Your task to perform on an android device: Empty the shopping cart on walmart.com. Add "alienware area 51" to the cart on walmart.com Image 0: 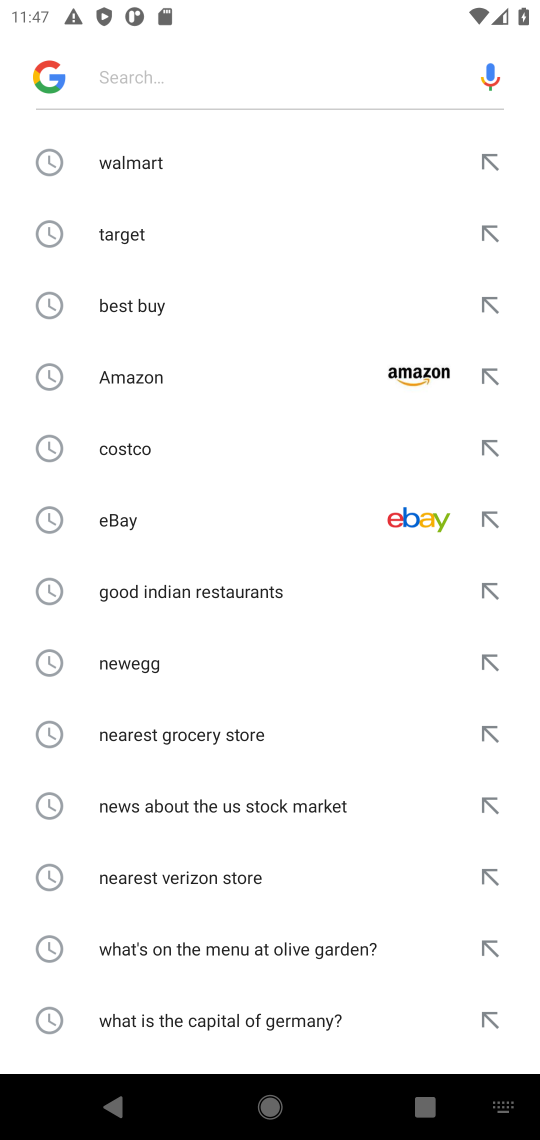
Step 0: press home button
Your task to perform on an android device: Empty the shopping cart on walmart.com. Add "alienware area 51" to the cart on walmart.com Image 1: 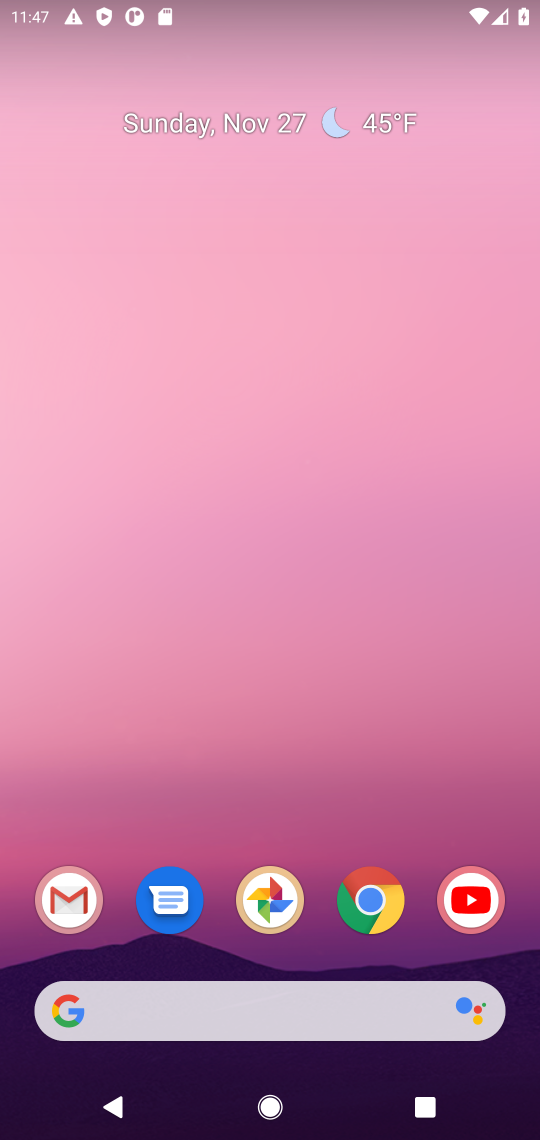
Step 1: click (381, 908)
Your task to perform on an android device: Empty the shopping cart on walmart.com. Add "alienware area 51" to the cart on walmart.com Image 2: 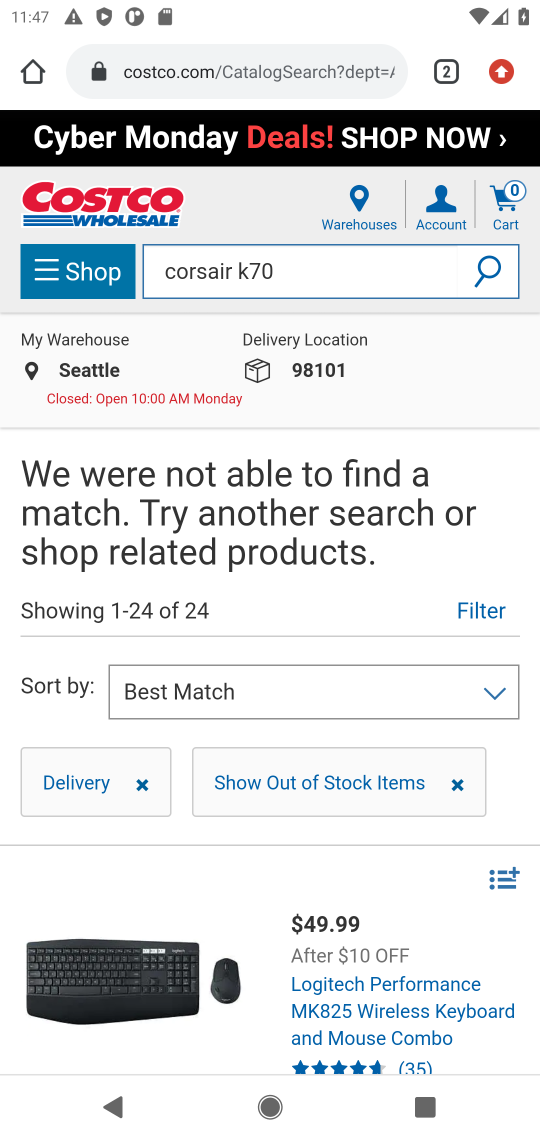
Step 2: click (174, 67)
Your task to perform on an android device: Empty the shopping cart on walmart.com. Add "alienware area 51" to the cart on walmart.com Image 3: 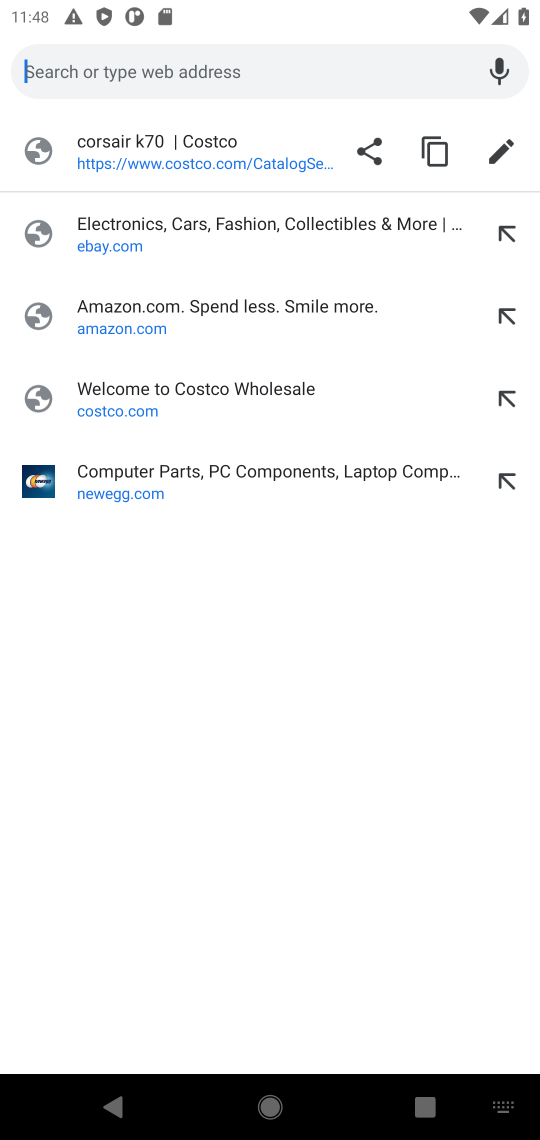
Step 3: type "walmart.com"
Your task to perform on an android device: Empty the shopping cart on walmart.com. Add "alienware area 51" to the cart on walmart.com Image 4: 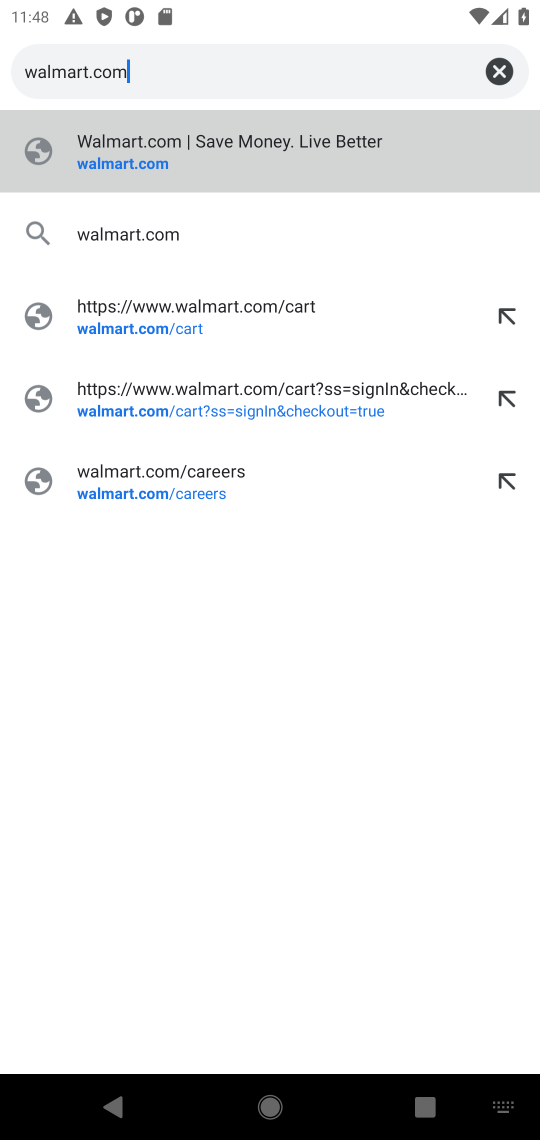
Step 4: click (116, 173)
Your task to perform on an android device: Empty the shopping cart on walmart.com. Add "alienware area 51" to the cart on walmart.com Image 5: 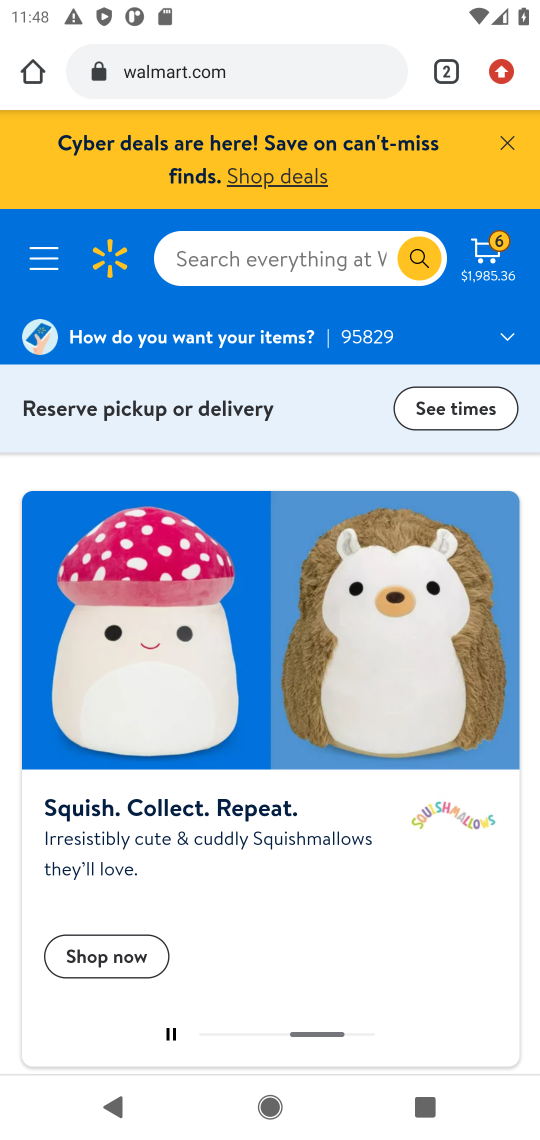
Step 5: click (484, 261)
Your task to perform on an android device: Empty the shopping cart on walmart.com. Add "alienware area 51" to the cart on walmart.com Image 6: 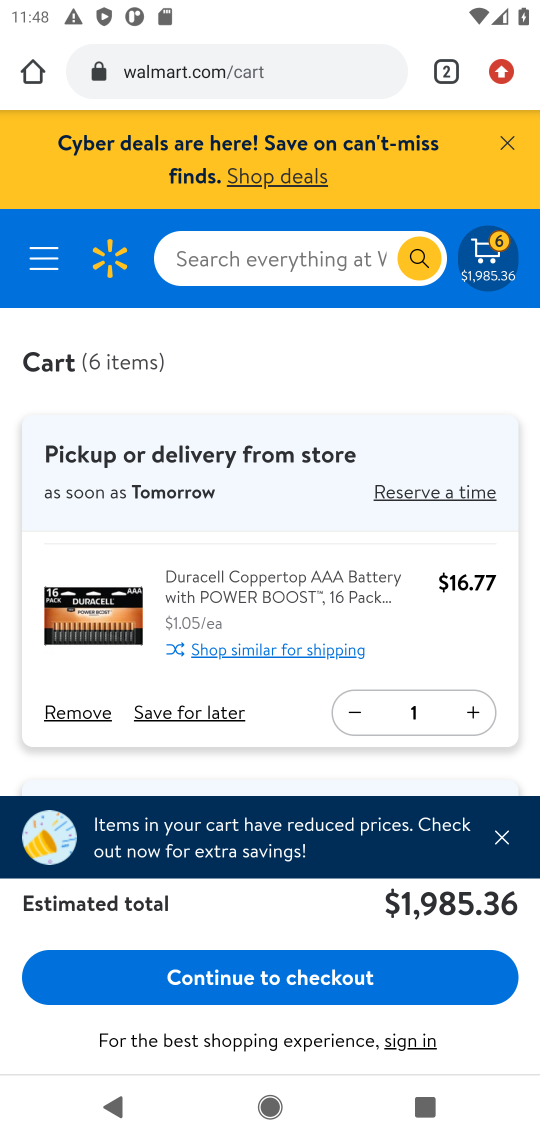
Step 6: click (69, 712)
Your task to perform on an android device: Empty the shopping cart on walmart.com. Add "alienware area 51" to the cart on walmart.com Image 7: 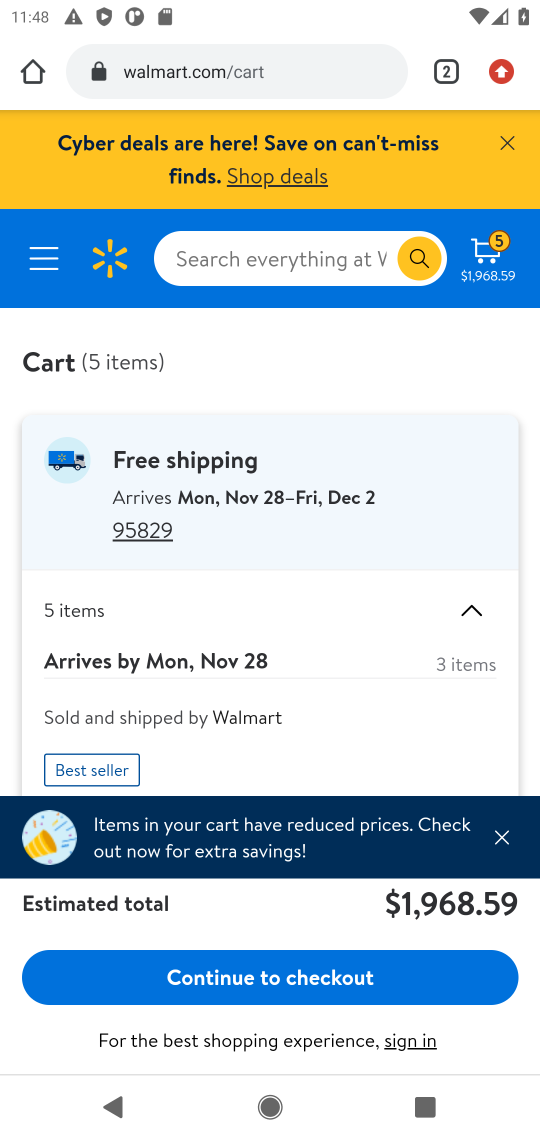
Step 7: drag from (335, 742) to (371, 420)
Your task to perform on an android device: Empty the shopping cart on walmart.com. Add "alienware area 51" to the cart on walmart.com Image 8: 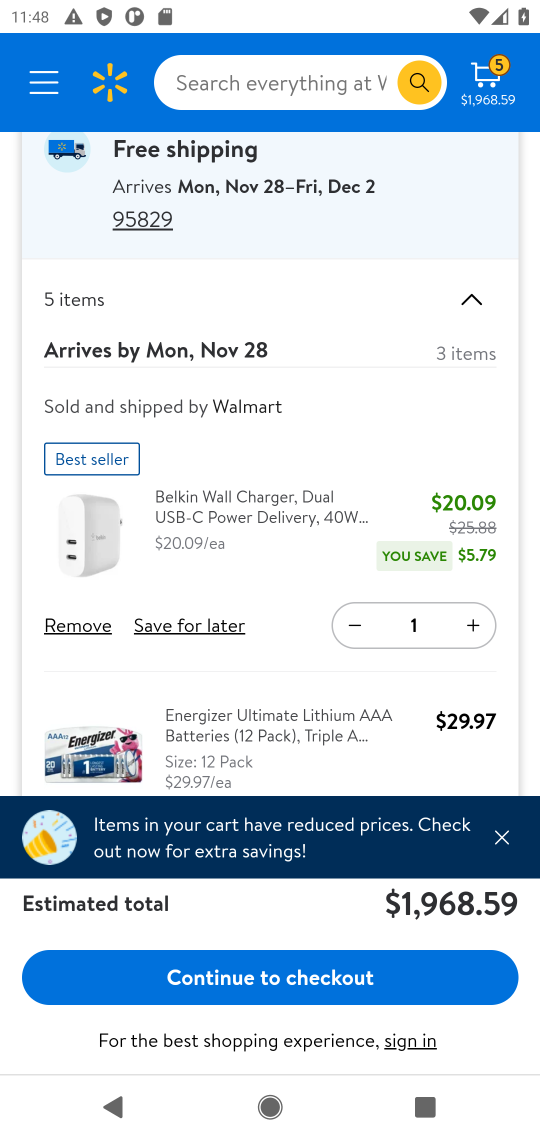
Step 8: click (67, 625)
Your task to perform on an android device: Empty the shopping cart on walmart.com. Add "alienware area 51" to the cart on walmart.com Image 9: 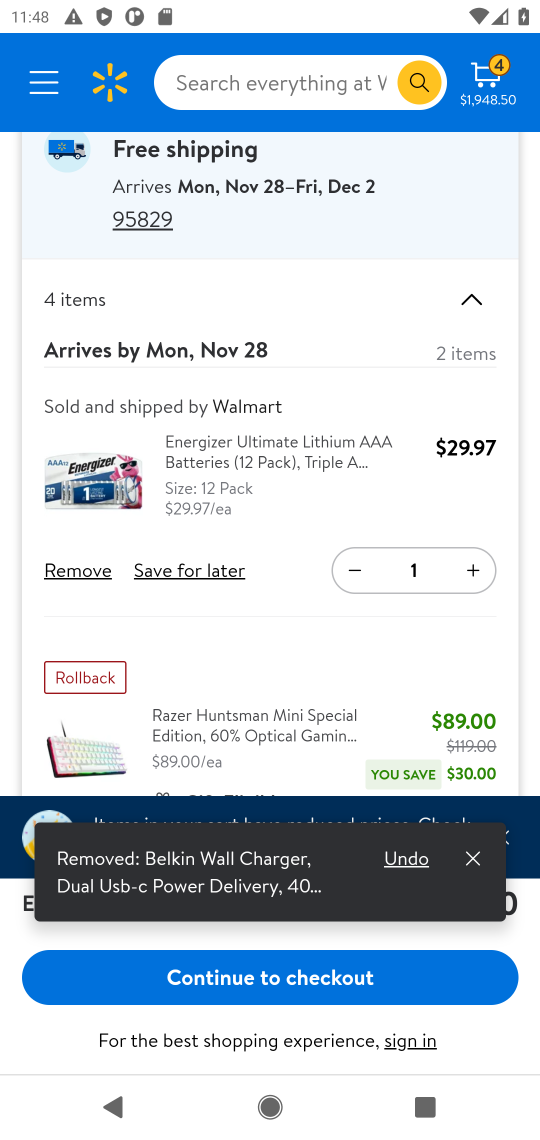
Step 9: click (56, 571)
Your task to perform on an android device: Empty the shopping cart on walmart.com. Add "alienware area 51" to the cart on walmart.com Image 10: 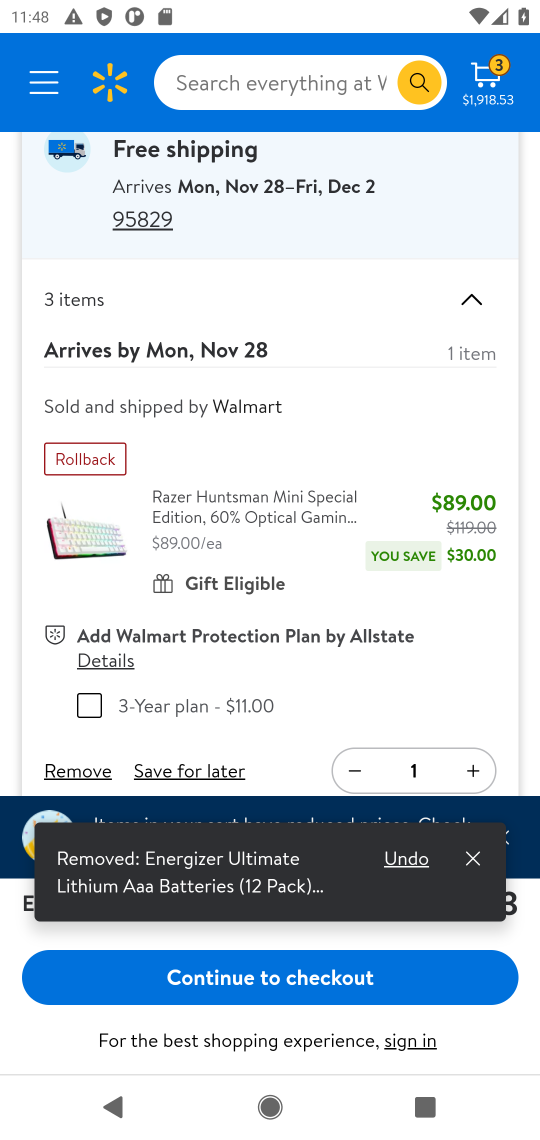
Step 10: click (79, 770)
Your task to perform on an android device: Empty the shopping cart on walmart.com. Add "alienware area 51" to the cart on walmart.com Image 11: 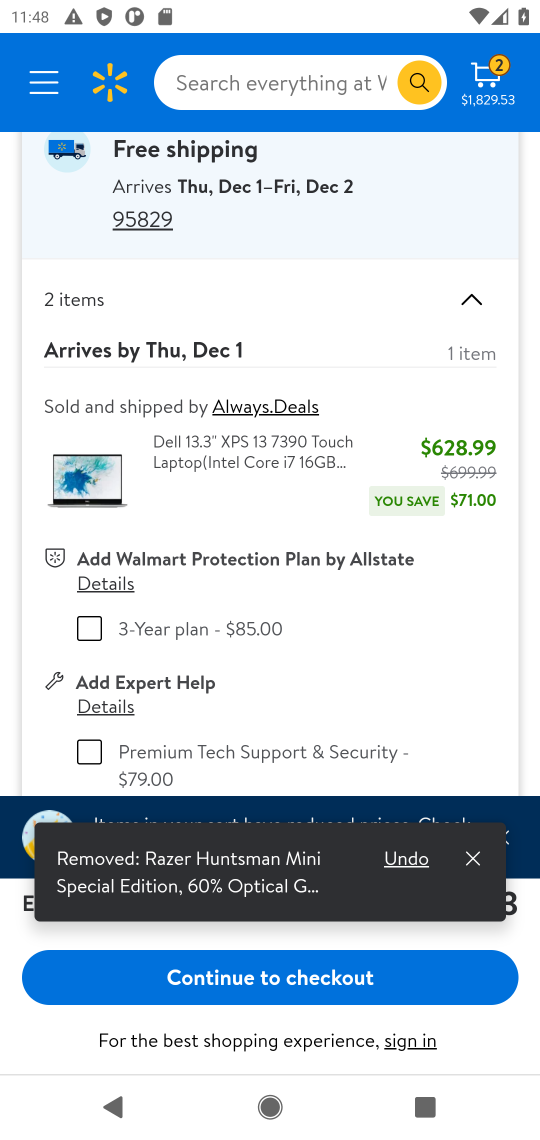
Step 11: drag from (309, 679) to (354, 296)
Your task to perform on an android device: Empty the shopping cart on walmart.com. Add "alienware area 51" to the cart on walmart.com Image 12: 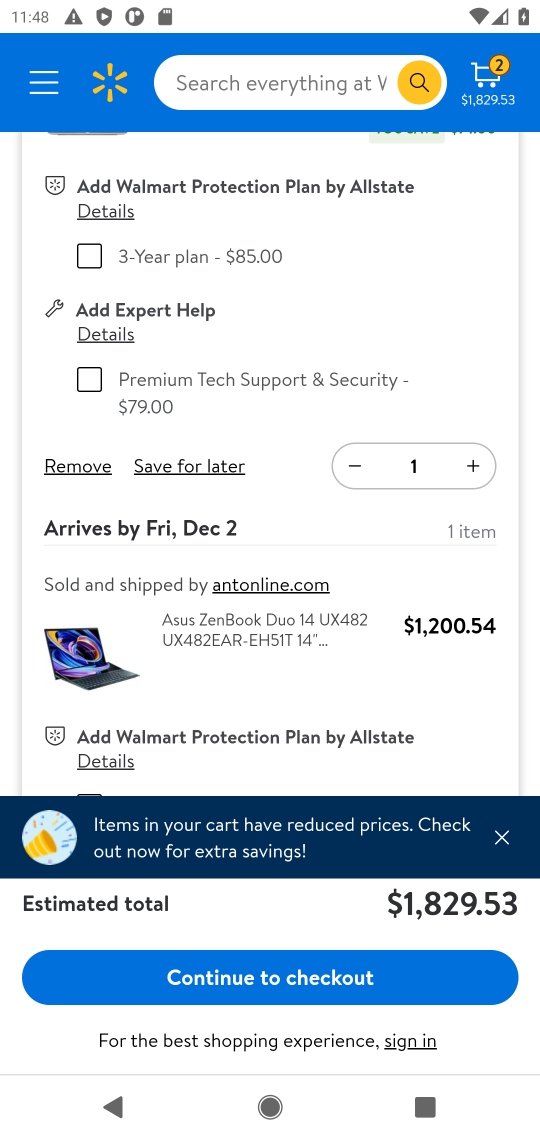
Step 12: click (73, 464)
Your task to perform on an android device: Empty the shopping cart on walmart.com. Add "alienware area 51" to the cart on walmart.com Image 13: 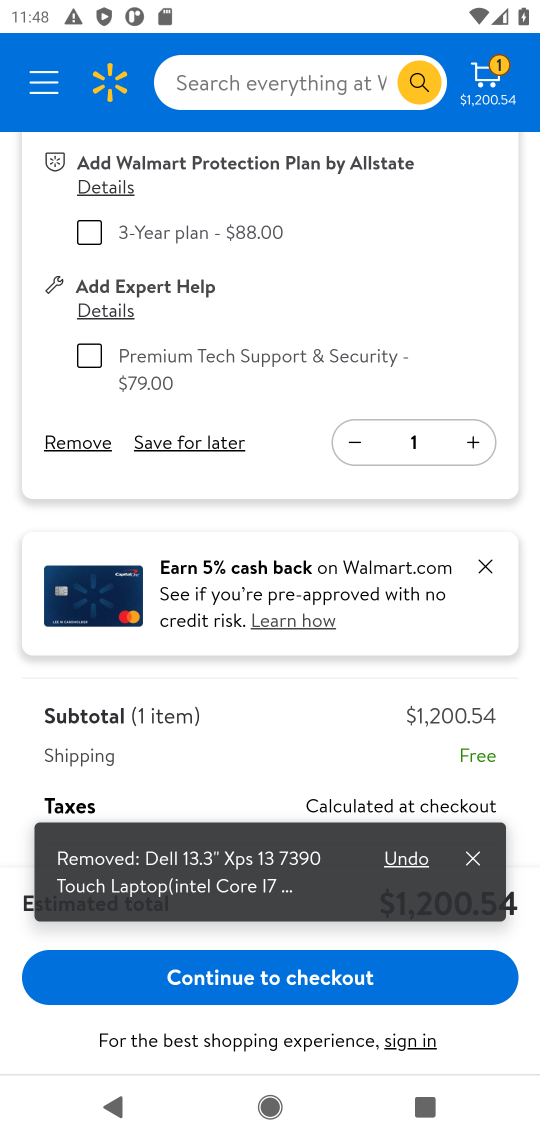
Step 13: click (64, 444)
Your task to perform on an android device: Empty the shopping cart on walmart.com. Add "alienware area 51" to the cart on walmart.com Image 14: 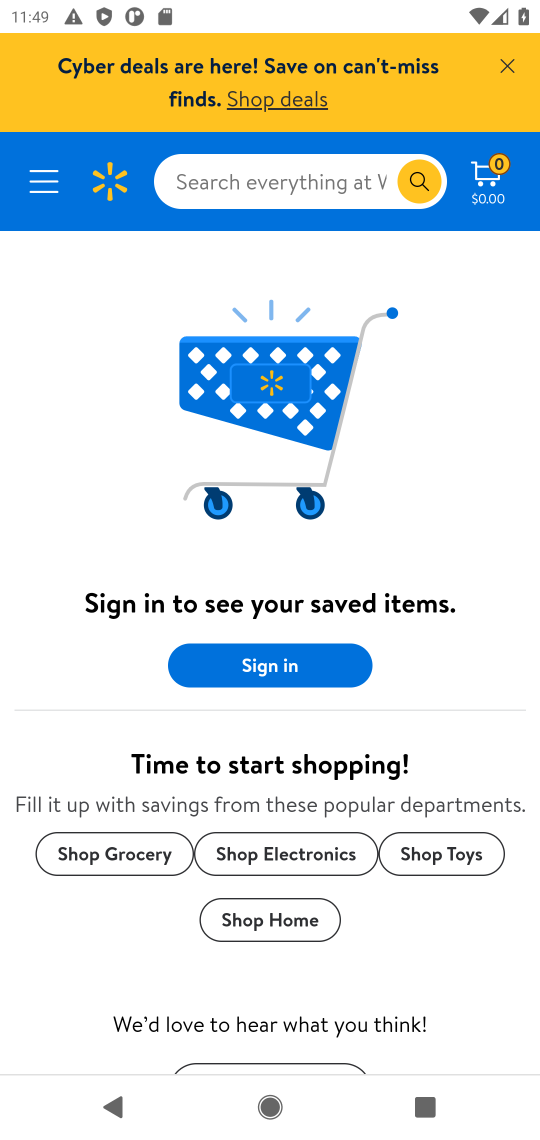
Step 14: click (211, 180)
Your task to perform on an android device: Empty the shopping cart on walmart.com. Add "alienware area 51" to the cart on walmart.com Image 15: 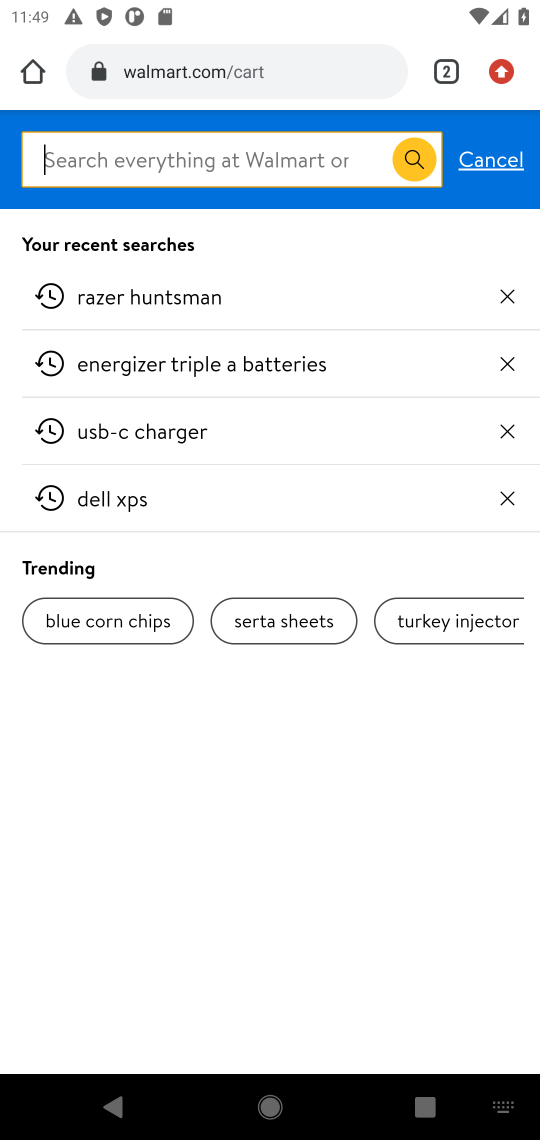
Step 15: type "alienware area 51"
Your task to perform on an android device: Empty the shopping cart on walmart.com. Add "alienware area 51" to the cart on walmart.com Image 16: 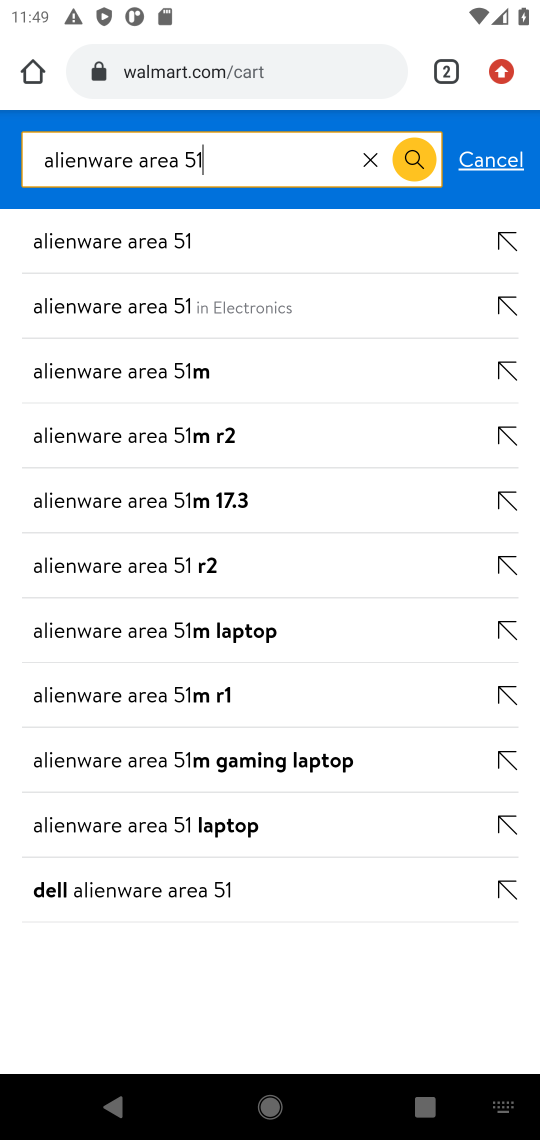
Step 16: click (128, 248)
Your task to perform on an android device: Empty the shopping cart on walmart.com. Add "alienware area 51" to the cart on walmart.com Image 17: 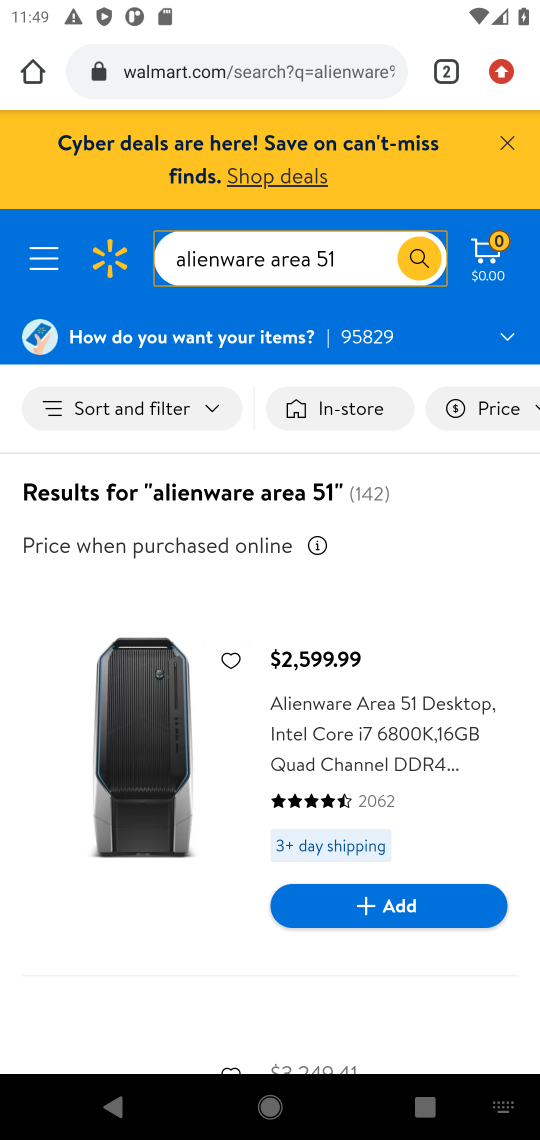
Step 17: click (374, 907)
Your task to perform on an android device: Empty the shopping cart on walmart.com. Add "alienware area 51" to the cart on walmart.com Image 18: 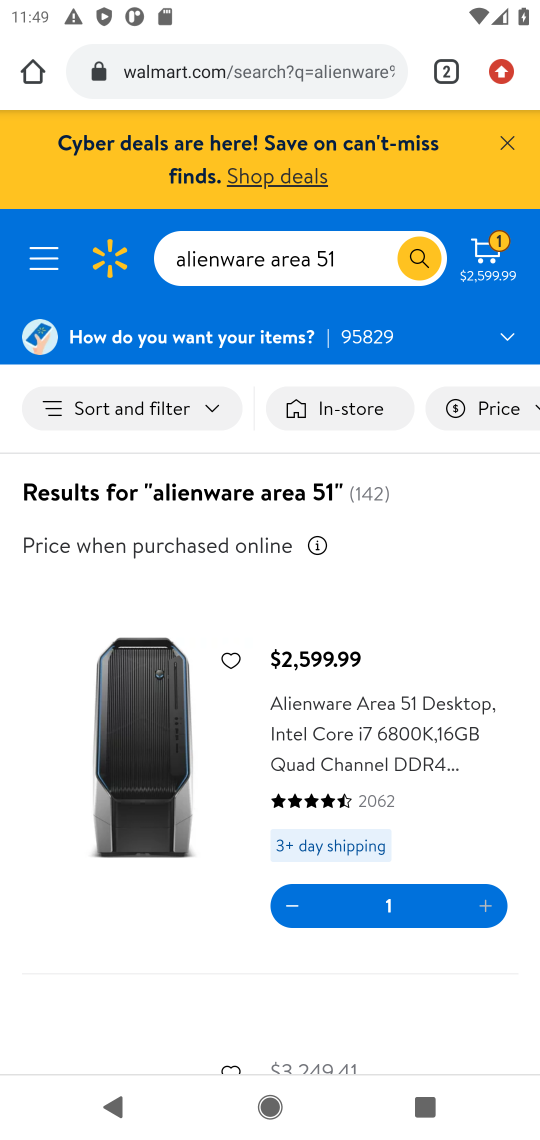
Step 18: task complete